Your task to perform on an android device: Go to Reddit.com Image 0: 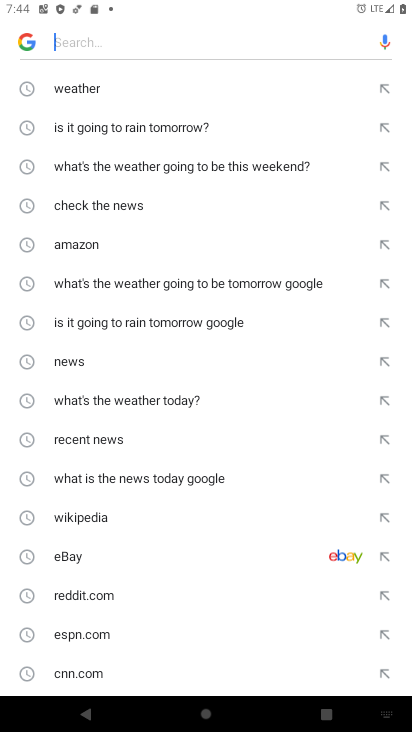
Step 0: press back button
Your task to perform on an android device: Go to Reddit.com Image 1: 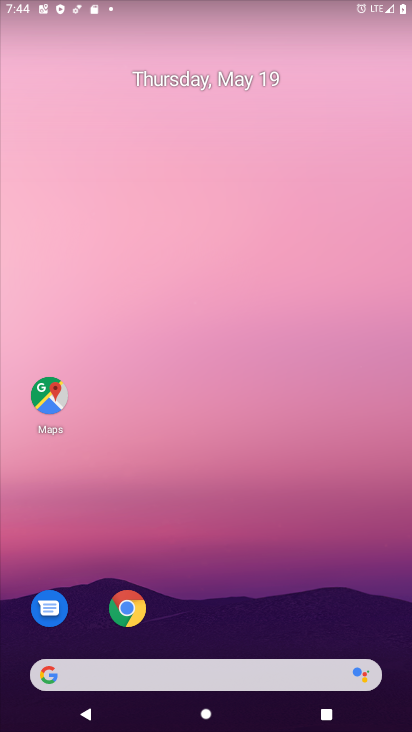
Step 1: click (133, 607)
Your task to perform on an android device: Go to Reddit.com Image 2: 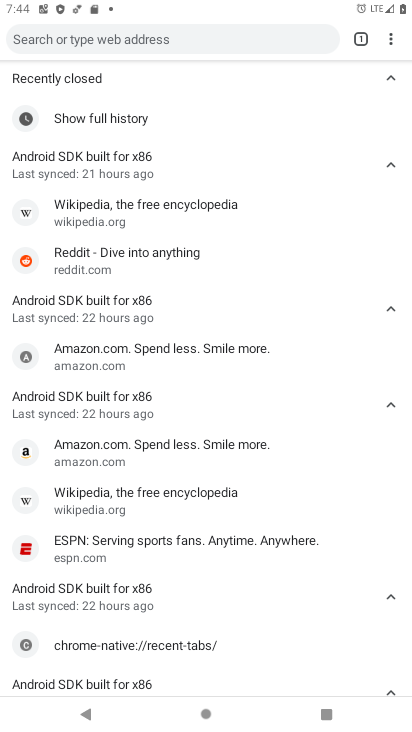
Step 2: click (126, 37)
Your task to perform on an android device: Go to Reddit.com Image 3: 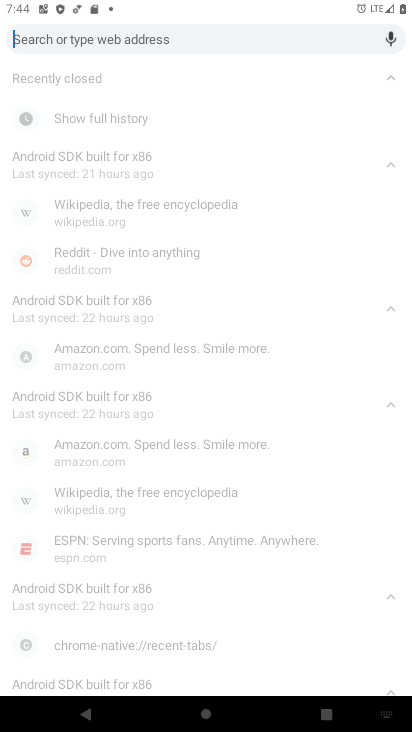
Step 3: type "Reddit.com"
Your task to perform on an android device: Go to Reddit.com Image 4: 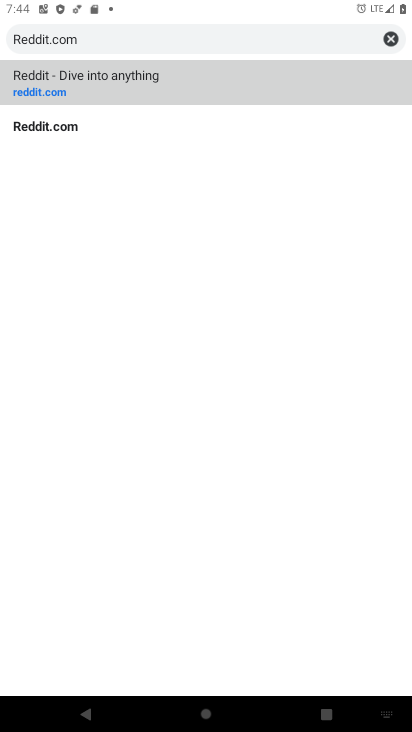
Step 4: click (34, 131)
Your task to perform on an android device: Go to Reddit.com Image 5: 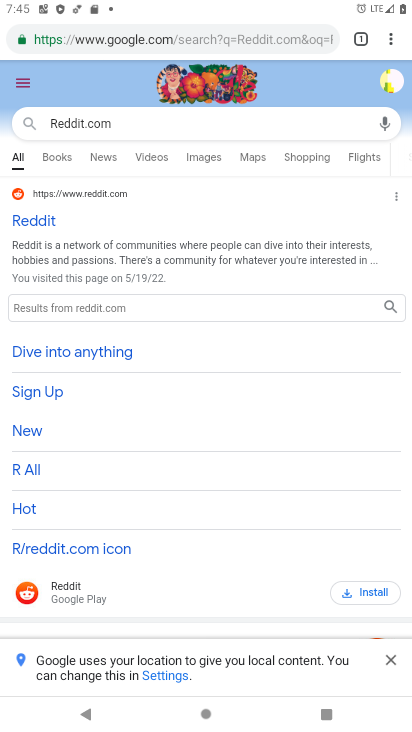
Step 5: task complete